Your task to perform on an android device: add a label to a message in the gmail app Image 0: 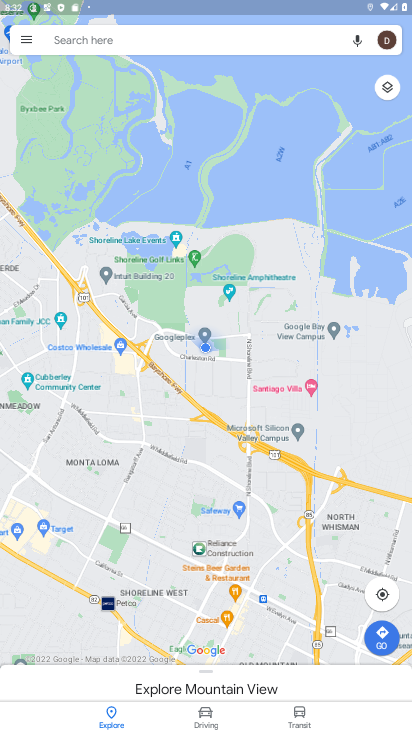
Step 0: press home button
Your task to perform on an android device: add a label to a message in the gmail app Image 1: 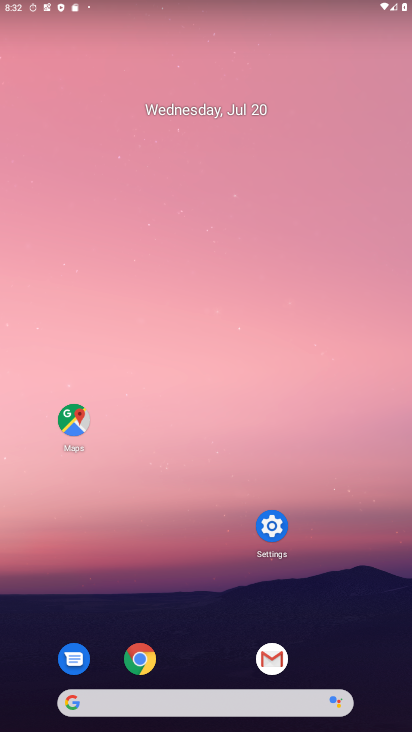
Step 1: click (267, 658)
Your task to perform on an android device: add a label to a message in the gmail app Image 2: 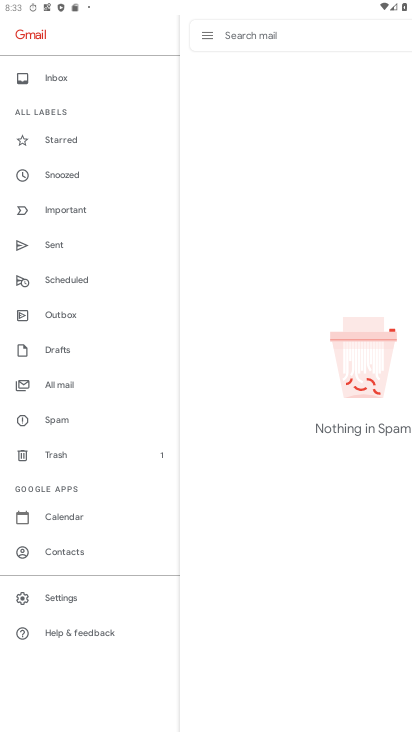
Step 2: click (82, 595)
Your task to perform on an android device: add a label to a message in the gmail app Image 3: 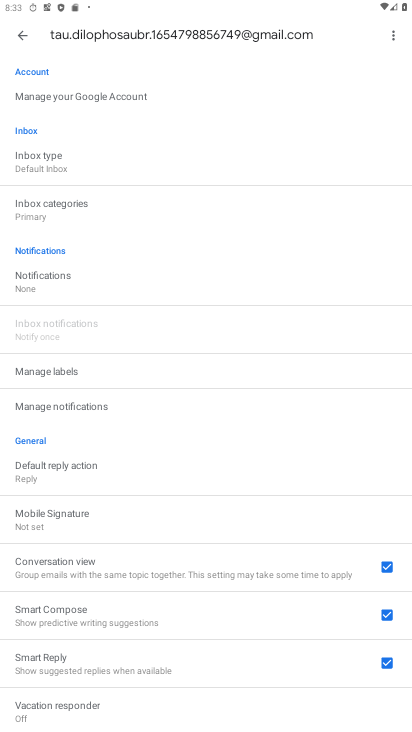
Step 3: click (70, 374)
Your task to perform on an android device: add a label to a message in the gmail app Image 4: 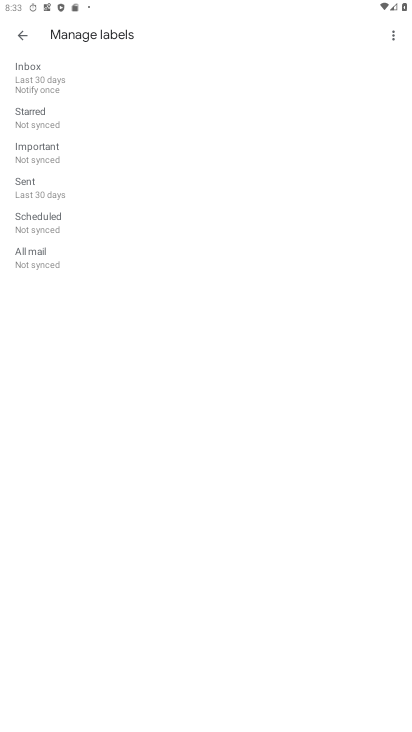
Step 4: click (71, 147)
Your task to perform on an android device: add a label to a message in the gmail app Image 5: 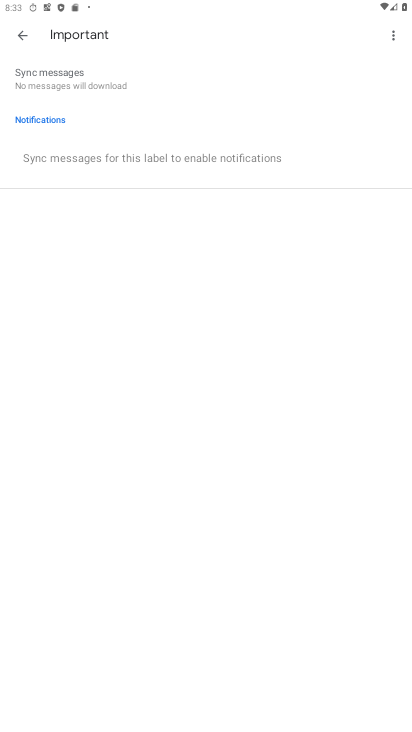
Step 5: task complete